Your task to perform on an android device: open chrome privacy settings Image 0: 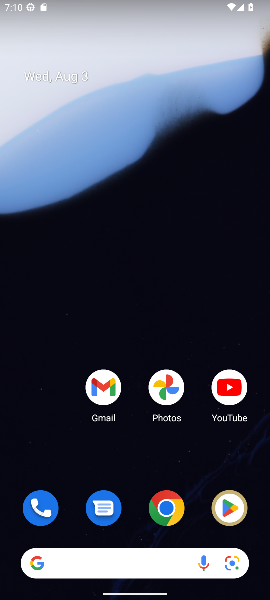
Step 0: click (169, 513)
Your task to perform on an android device: open chrome privacy settings Image 1: 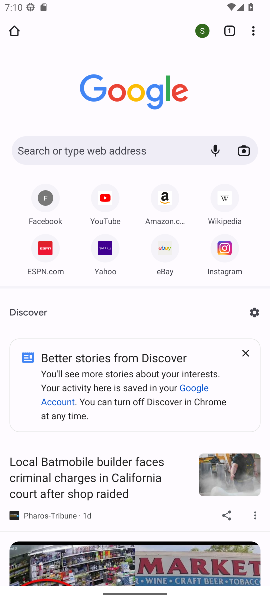
Step 1: click (252, 29)
Your task to perform on an android device: open chrome privacy settings Image 2: 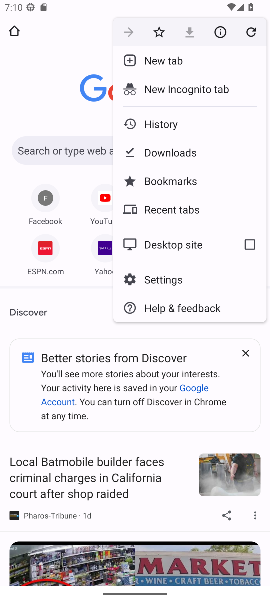
Step 2: click (172, 279)
Your task to perform on an android device: open chrome privacy settings Image 3: 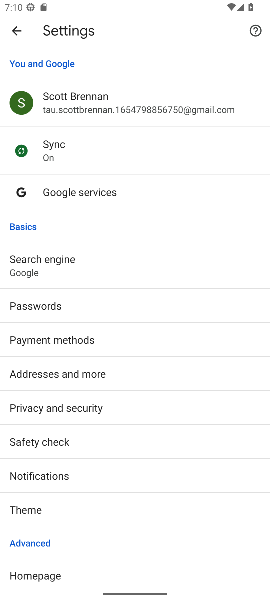
Step 3: click (152, 412)
Your task to perform on an android device: open chrome privacy settings Image 4: 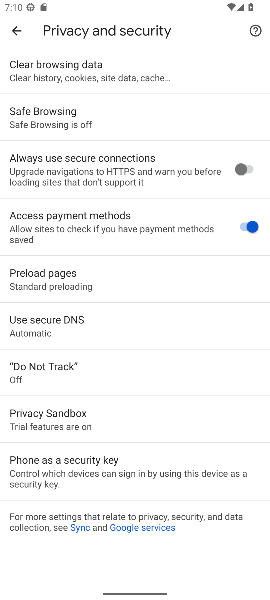
Step 4: task complete